Your task to perform on an android device: Open the map Image 0: 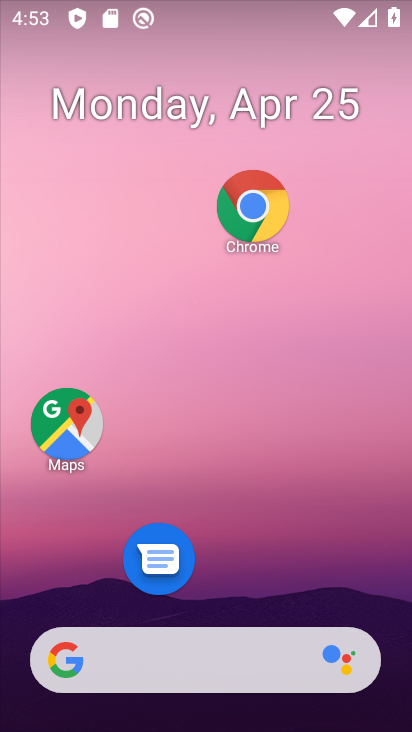
Step 0: click (70, 426)
Your task to perform on an android device: Open the map Image 1: 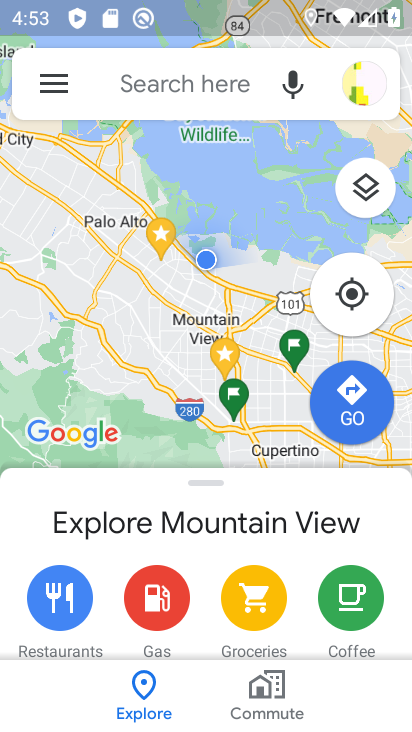
Step 1: task complete